Your task to perform on an android device: Go to location settings Image 0: 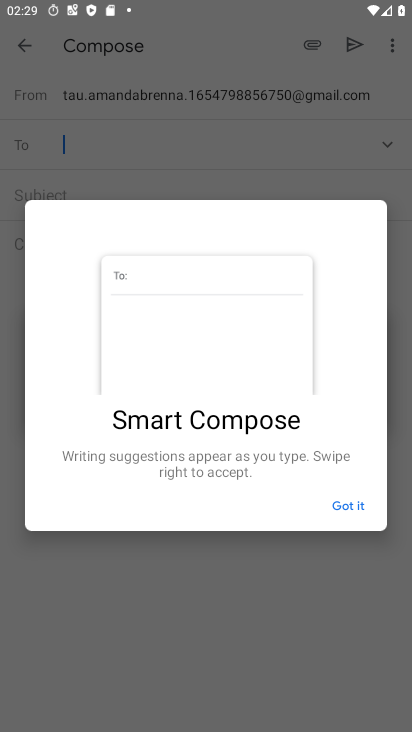
Step 0: press home button
Your task to perform on an android device: Go to location settings Image 1: 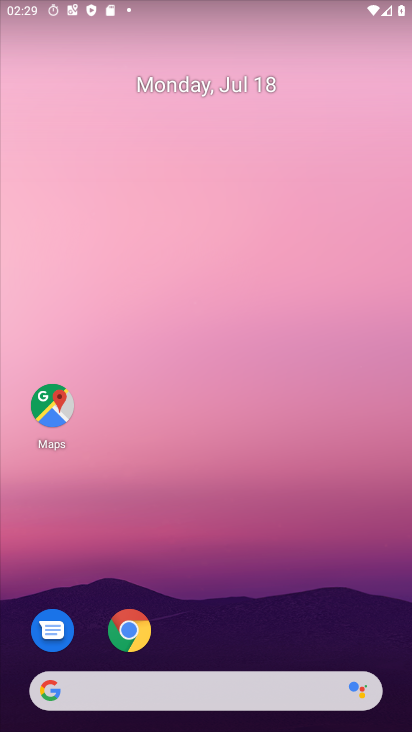
Step 1: drag from (210, 671) to (163, 265)
Your task to perform on an android device: Go to location settings Image 2: 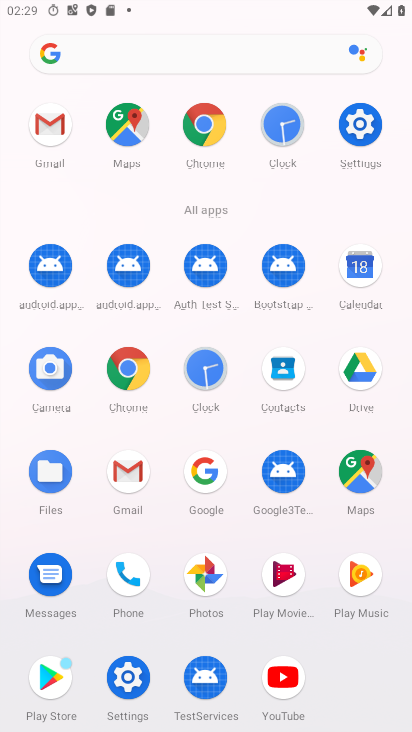
Step 2: click (347, 136)
Your task to perform on an android device: Go to location settings Image 3: 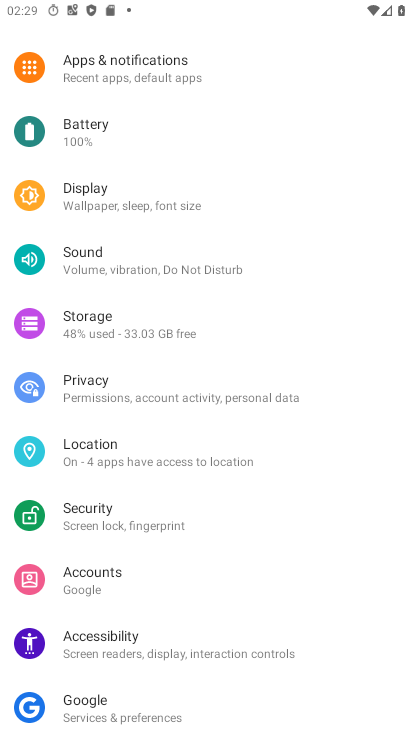
Step 3: click (114, 451)
Your task to perform on an android device: Go to location settings Image 4: 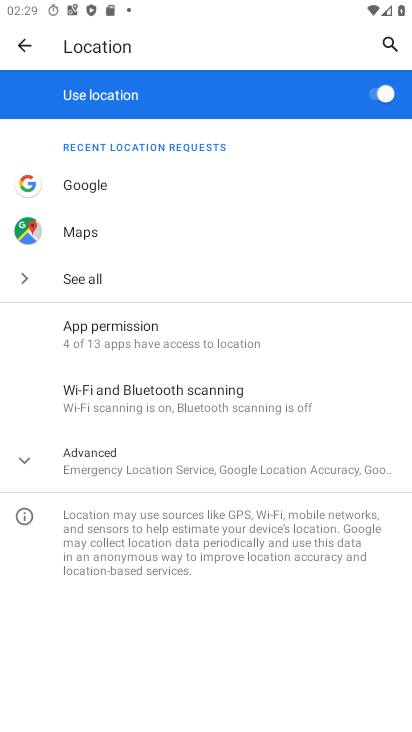
Step 4: task complete